Your task to perform on an android device: What's the weather going to be tomorrow? Image 0: 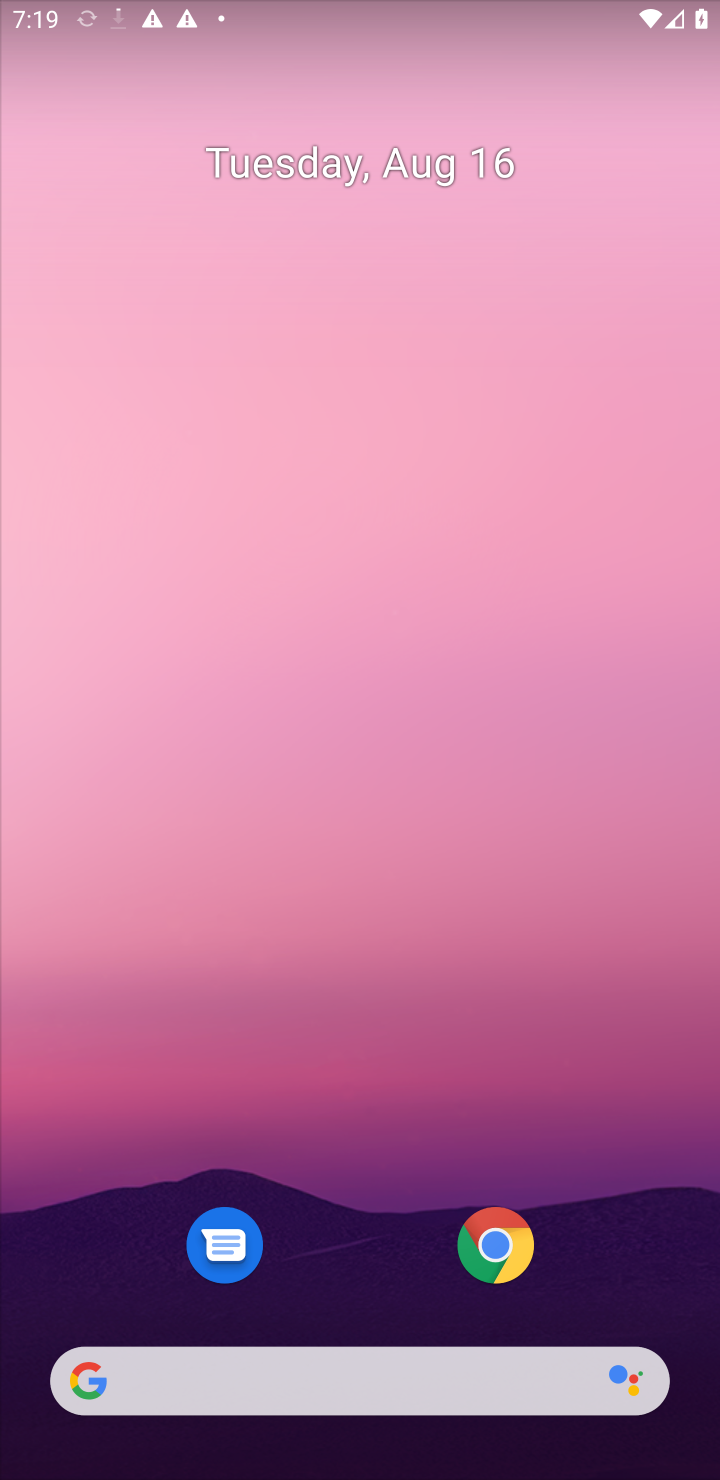
Step 0: press home button
Your task to perform on an android device: What's the weather going to be tomorrow? Image 1: 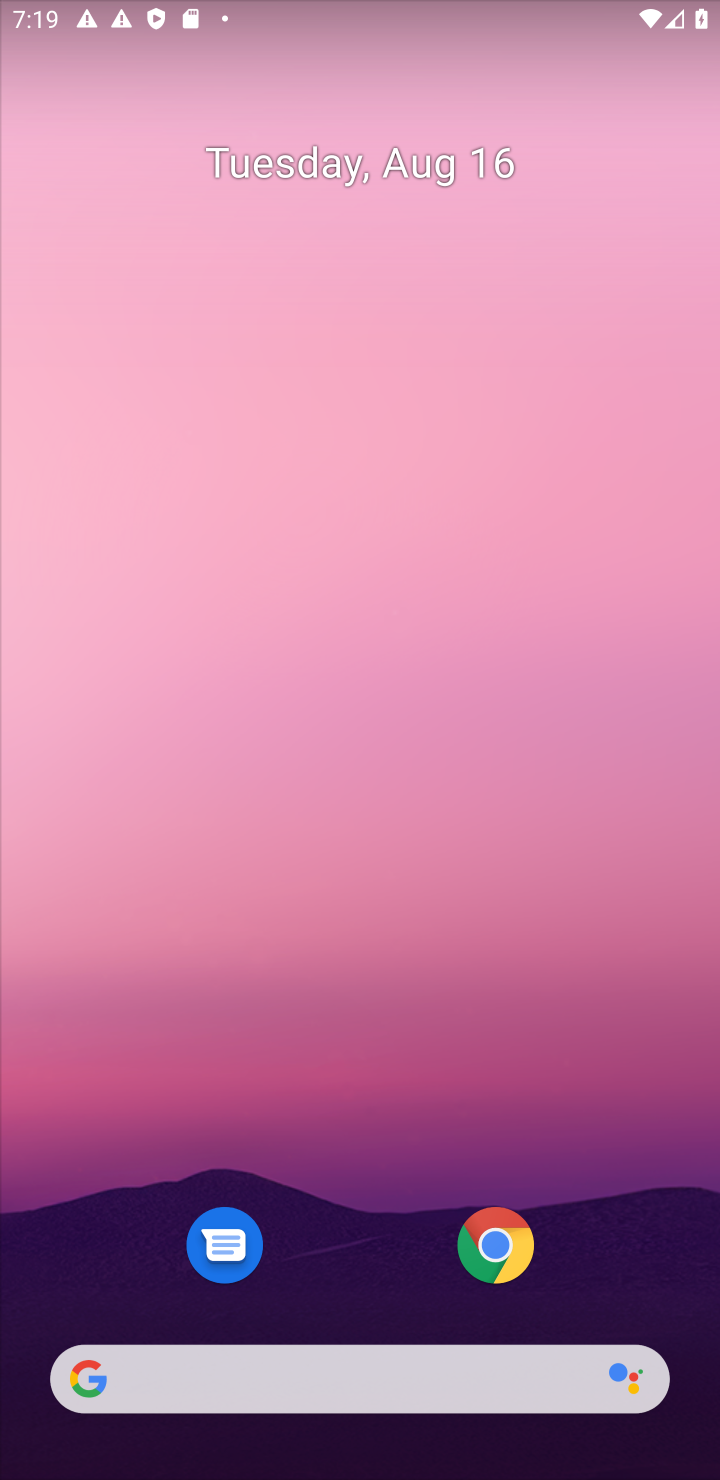
Step 1: click (80, 1390)
Your task to perform on an android device: What's the weather going to be tomorrow? Image 2: 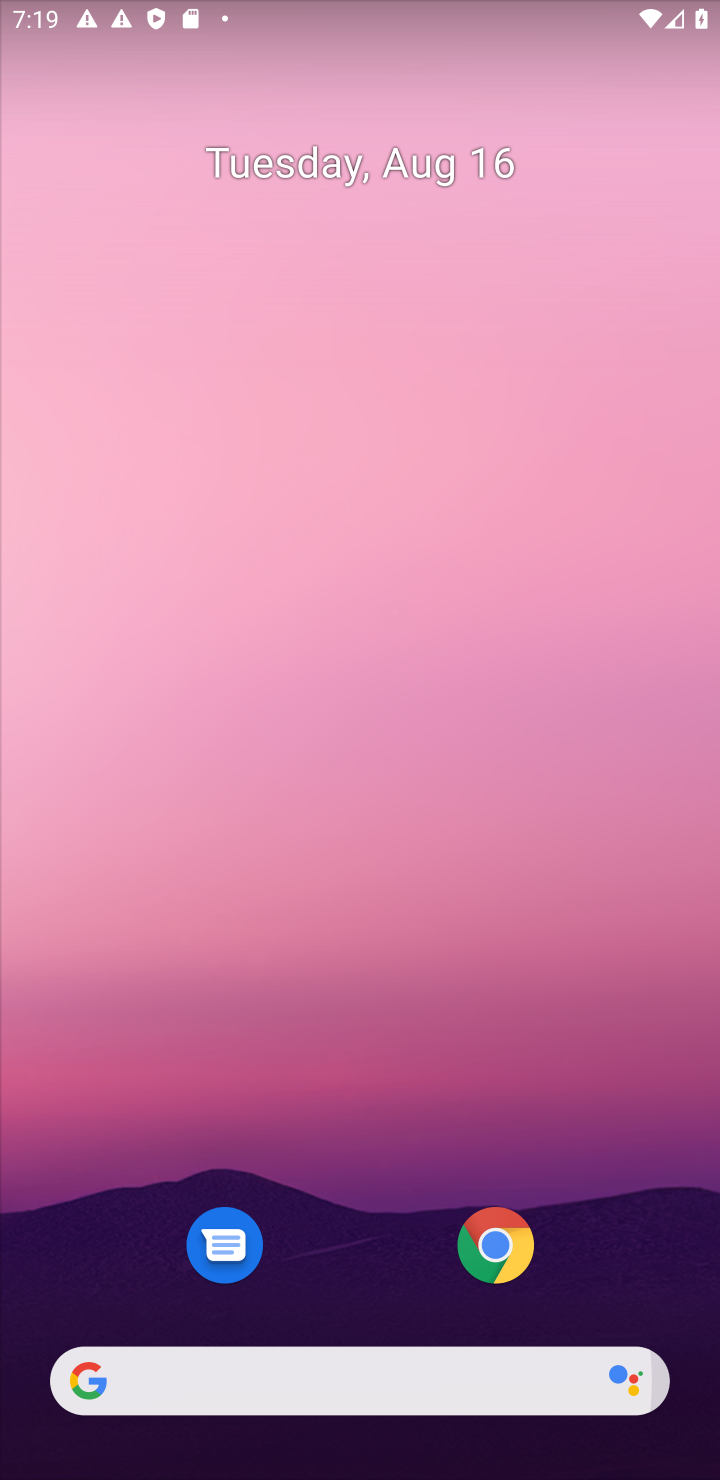
Step 2: click (80, 1382)
Your task to perform on an android device: What's the weather going to be tomorrow? Image 3: 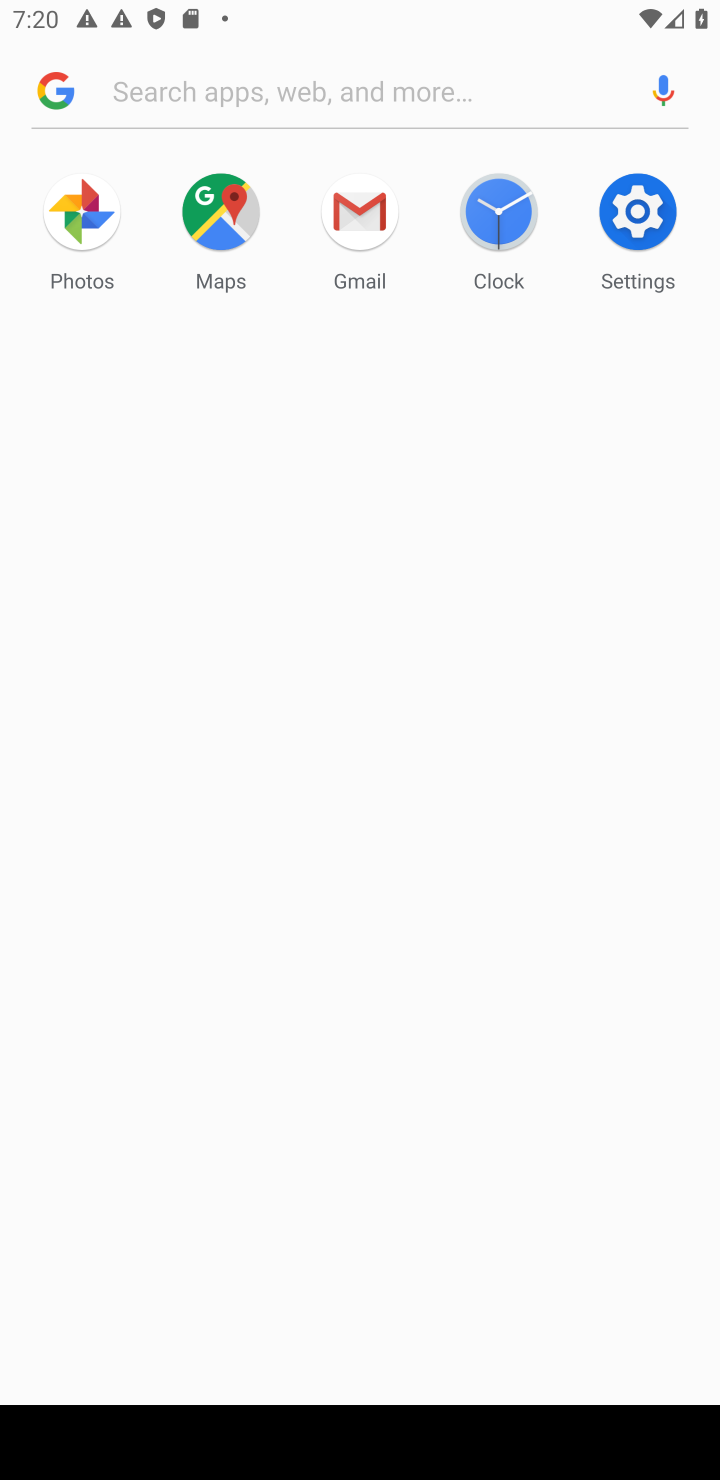
Step 3: type "What's the weather going to be tomorrow?"
Your task to perform on an android device: What's the weather going to be tomorrow? Image 4: 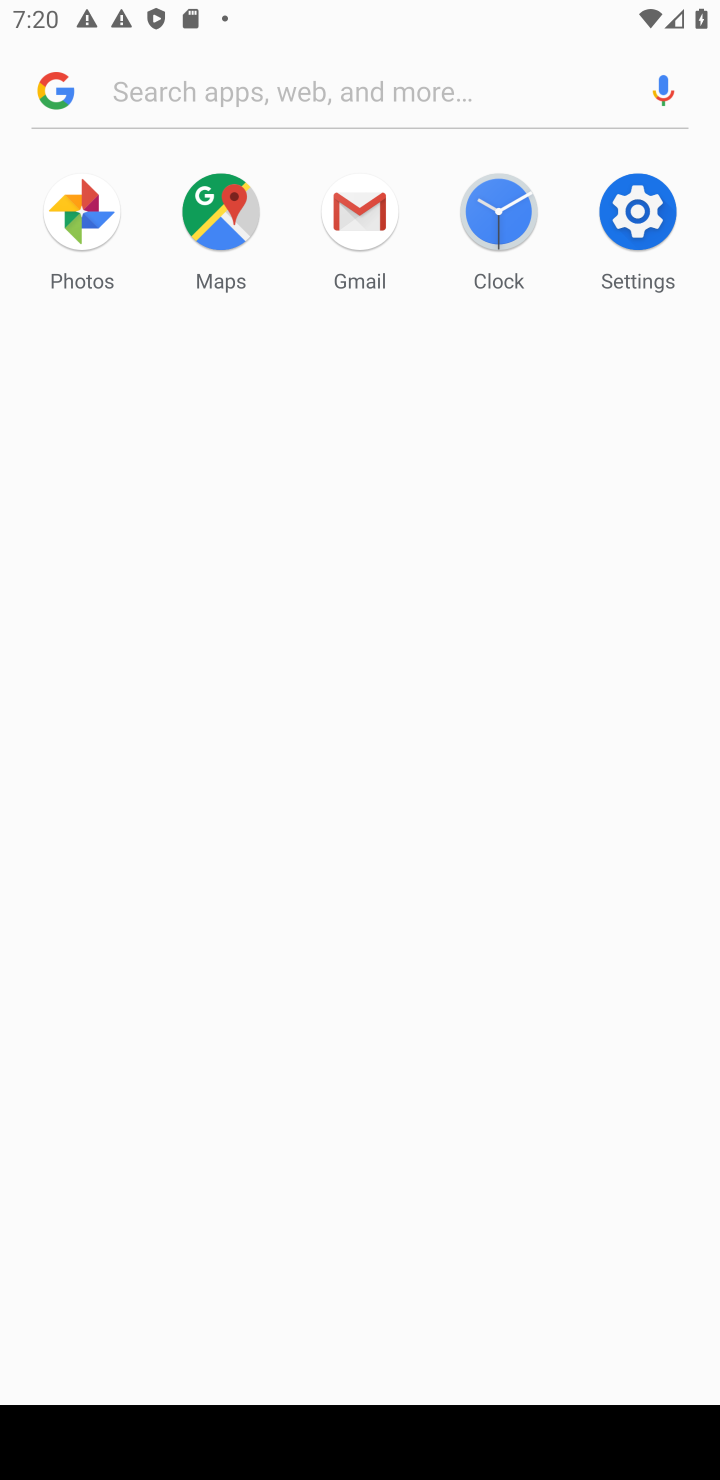
Step 4: click (176, 88)
Your task to perform on an android device: What's the weather going to be tomorrow? Image 5: 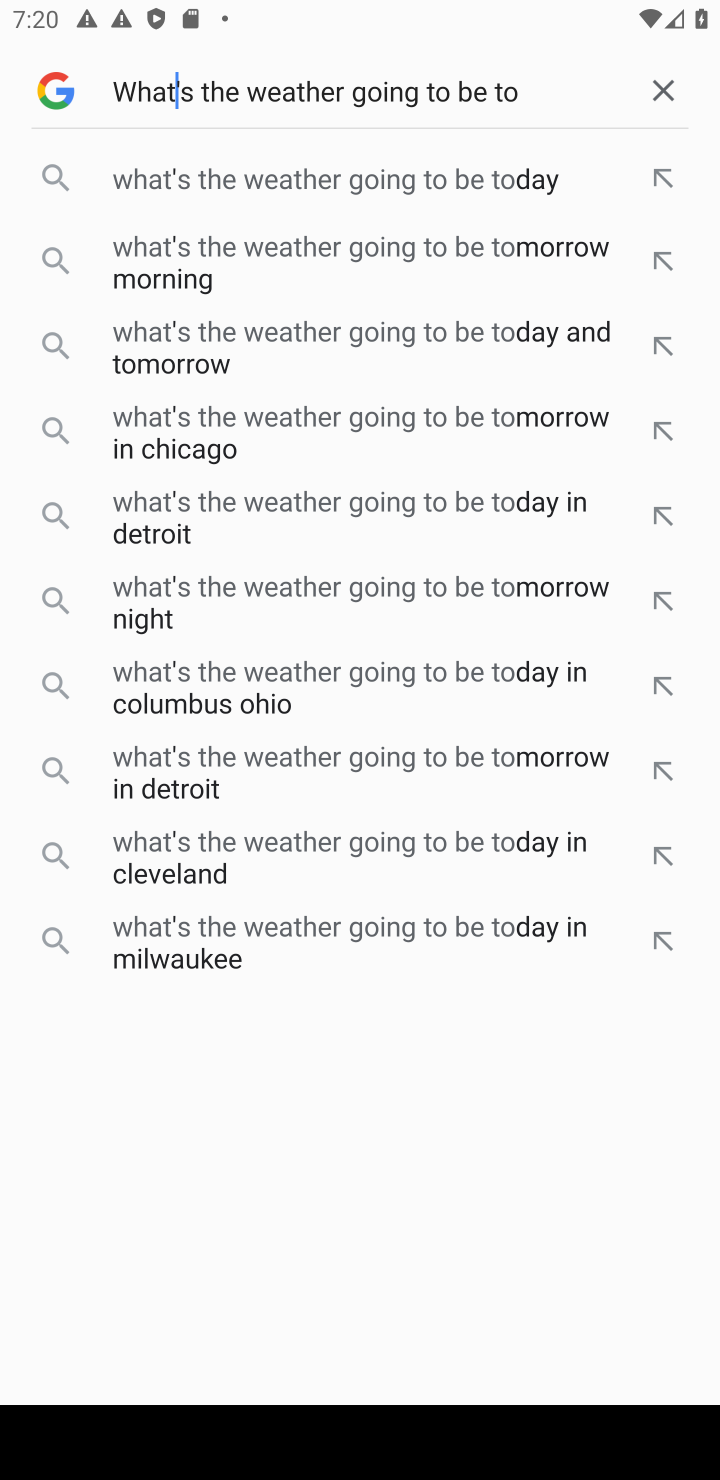
Step 5: click (654, 92)
Your task to perform on an android device: What's the weather going to be tomorrow? Image 6: 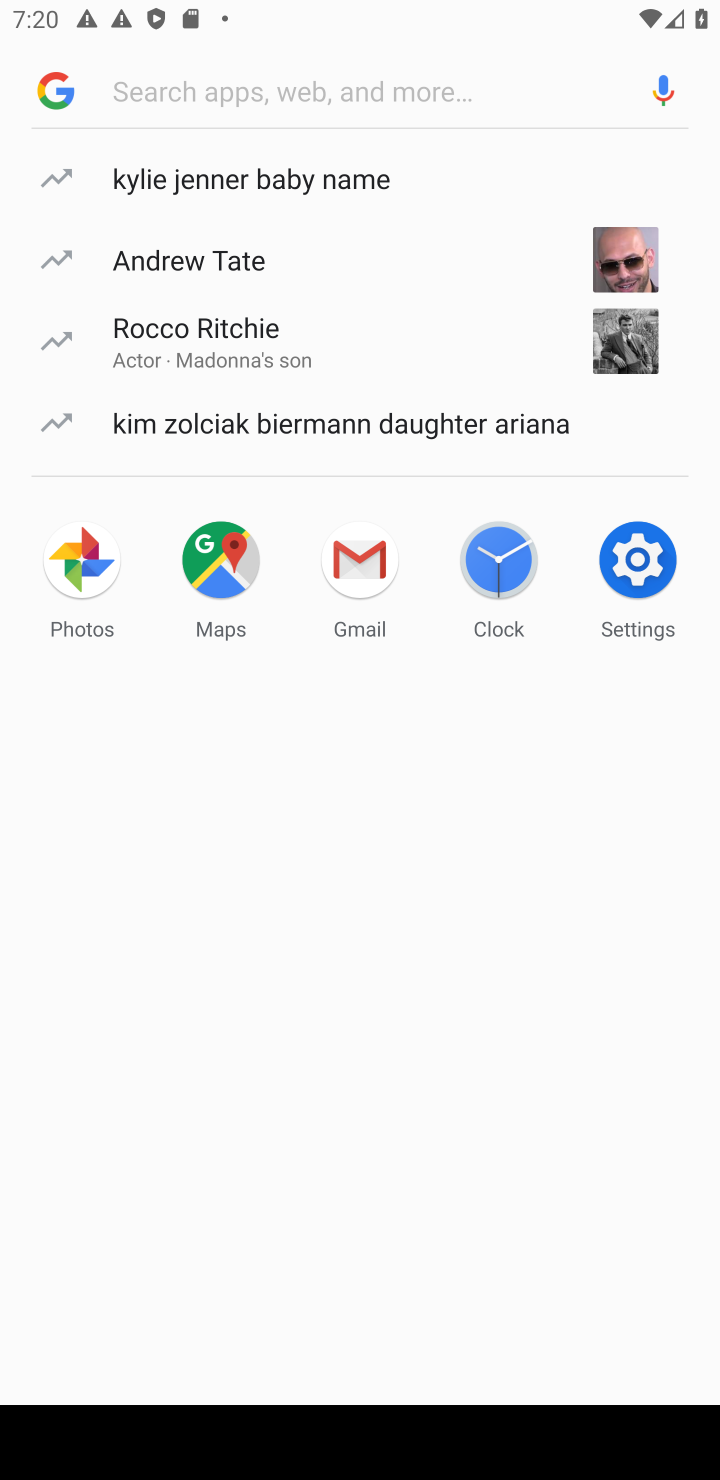
Step 6: type "What's the weather going to be tomorrow?"
Your task to perform on an android device: What's the weather going to be tomorrow? Image 7: 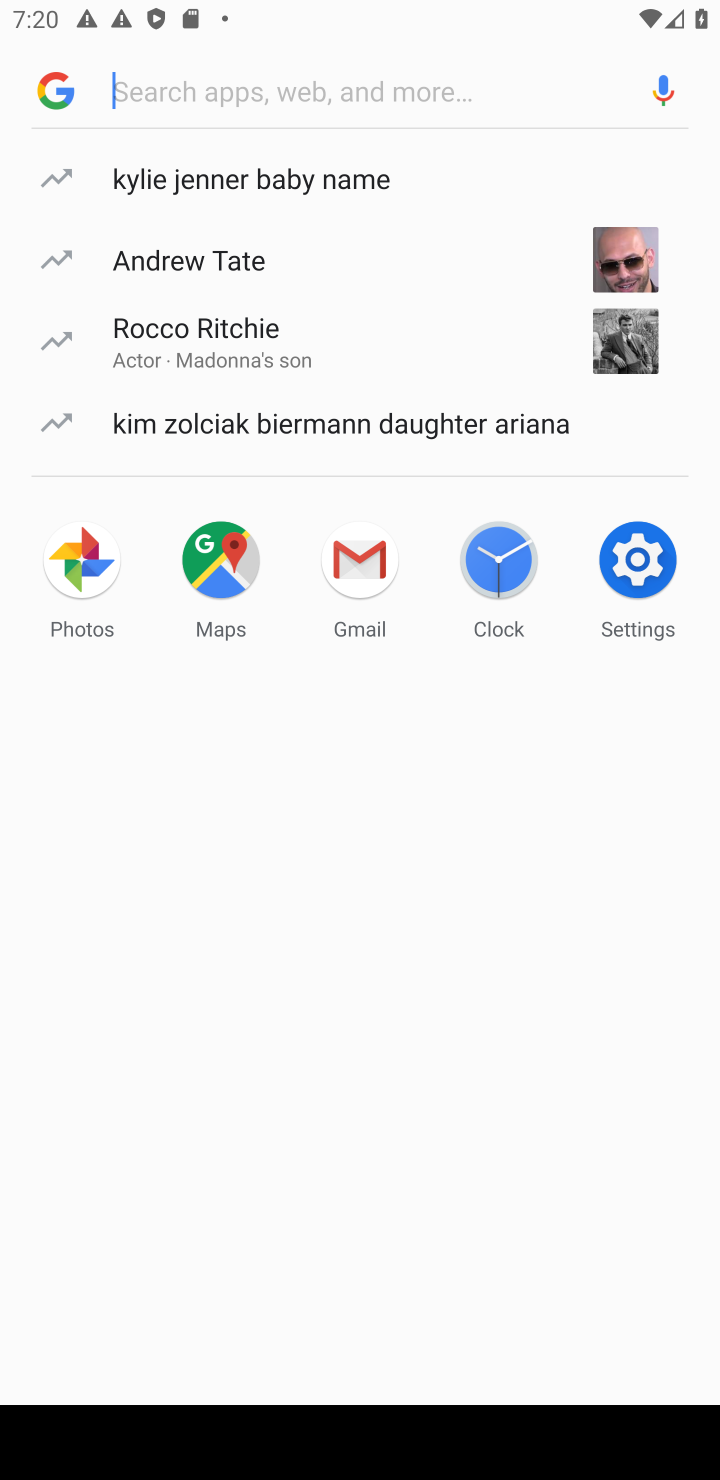
Step 7: click (251, 83)
Your task to perform on an android device: What's the weather going to be tomorrow? Image 8: 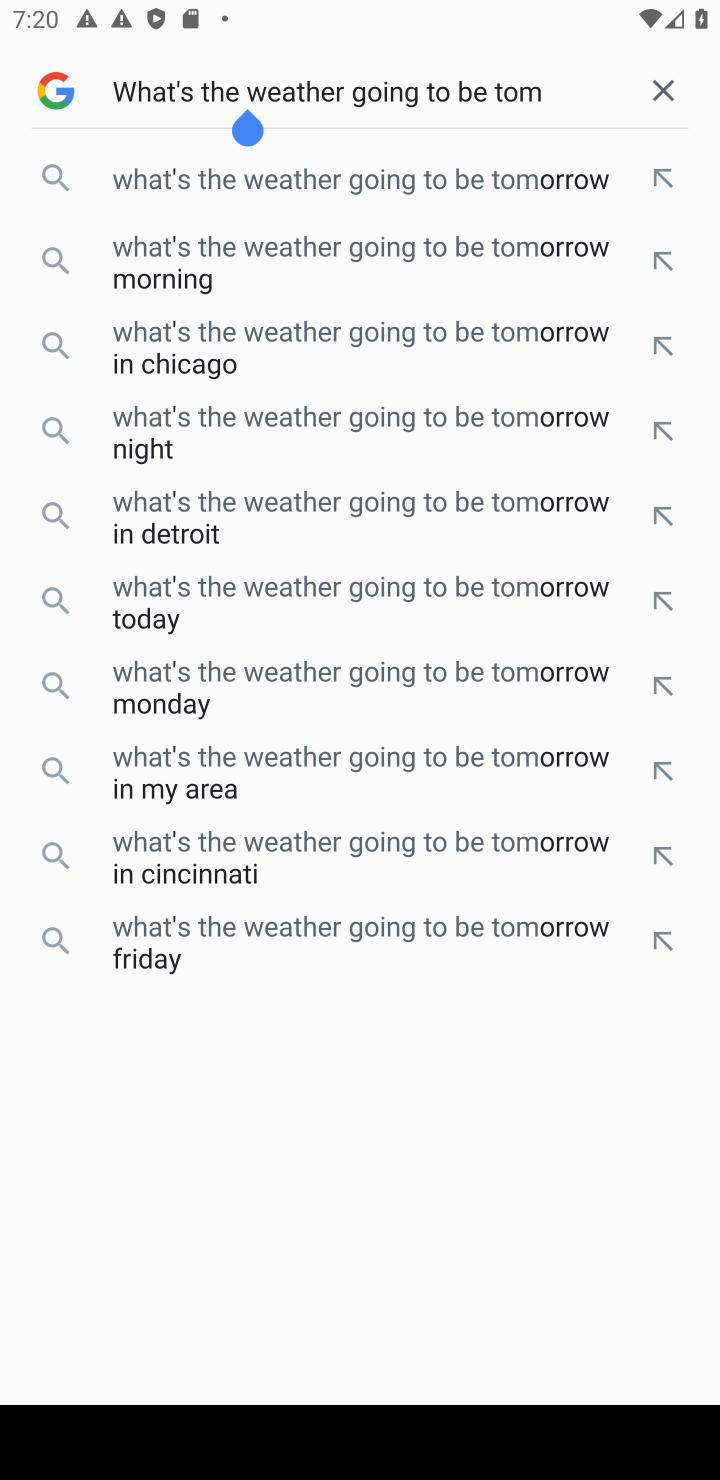
Step 8: click (222, 178)
Your task to perform on an android device: What's the weather going to be tomorrow? Image 9: 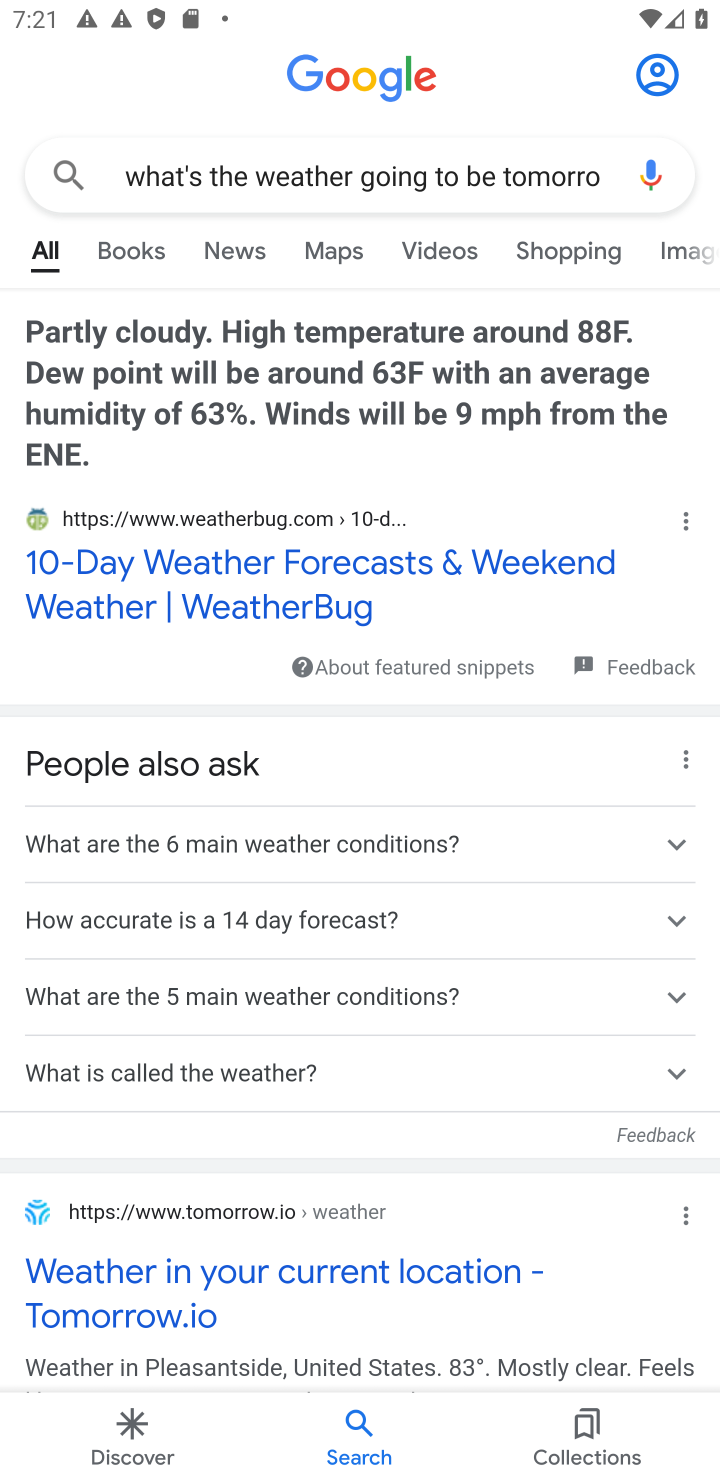
Step 9: task complete